Your task to perform on an android device: Open Google Chrome Image 0: 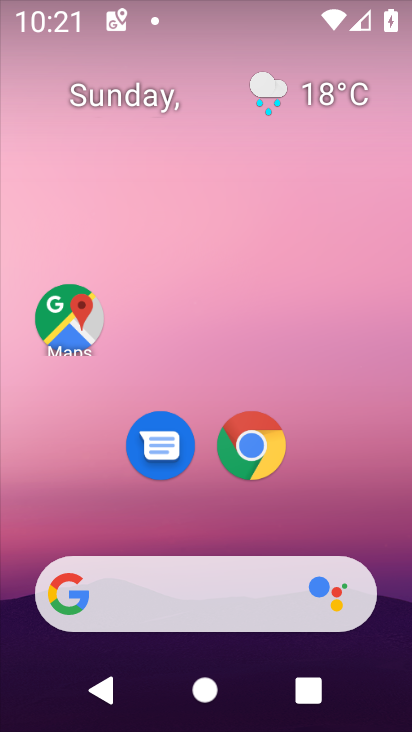
Step 0: press home button
Your task to perform on an android device: Open Google Chrome Image 1: 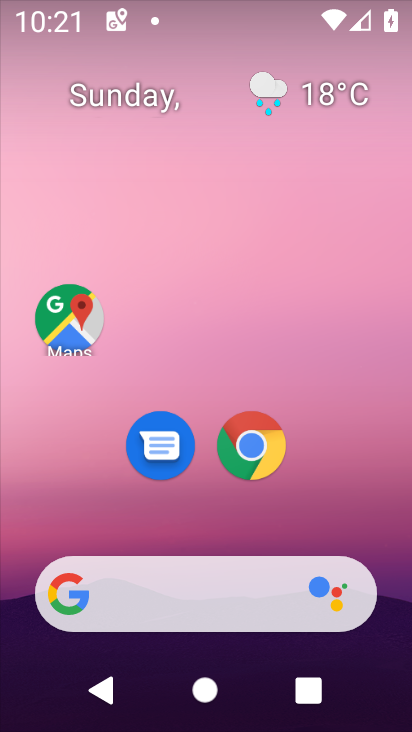
Step 1: click (244, 435)
Your task to perform on an android device: Open Google Chrome Image 2: 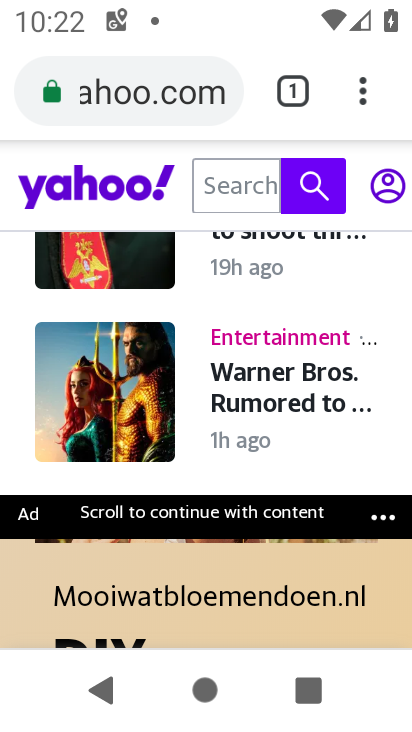
Step 2: press home button
Your task to perform on an android device: Open Google Chrome Image 3: 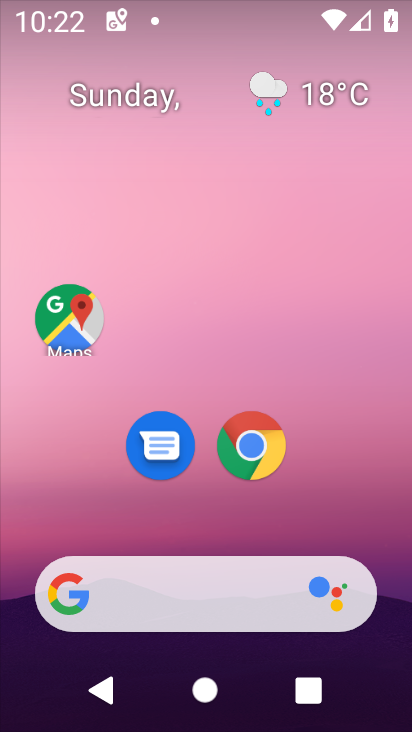
Step 3: click (245, 438)
Your task to perform on an android device: Open Google Chrome Image 4: 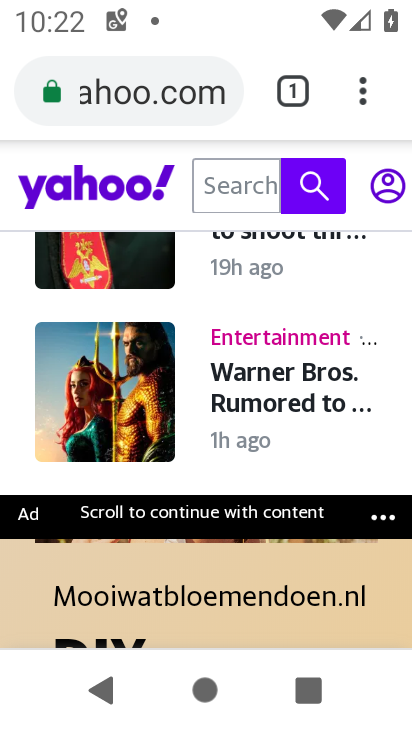
Step 4: click (296, 94)
Your task to perform on an android device: Open Google Chrome Image 5: 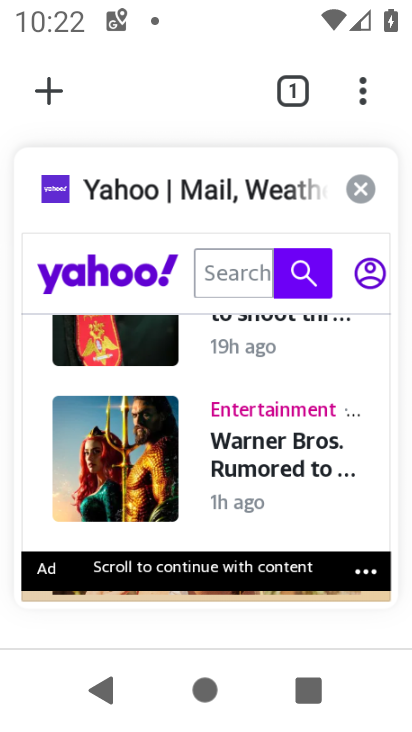
Step 5: click (359, 179)
Your task to perform on an android device: Open Google Chrome Image 6: 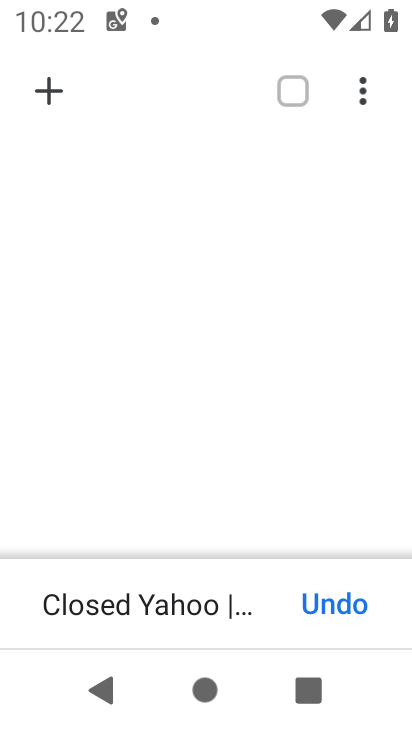
Step 6: click (54, 91)
Your task to perform on an android device: Open Google Chrome Image 7: 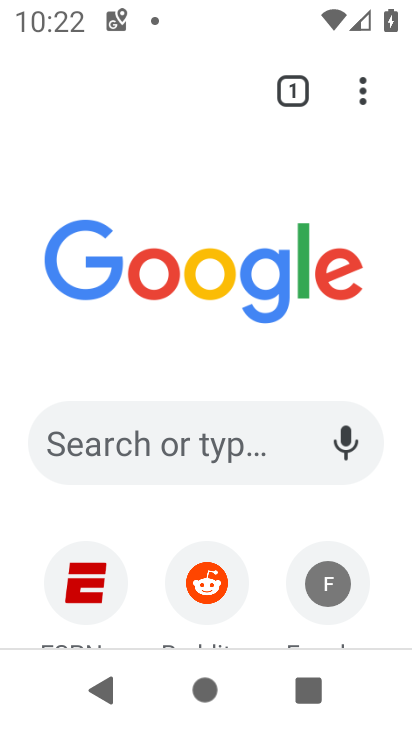
Step 7: task complete